Your task to perform on an android device: Do I have any events today? Image 0: 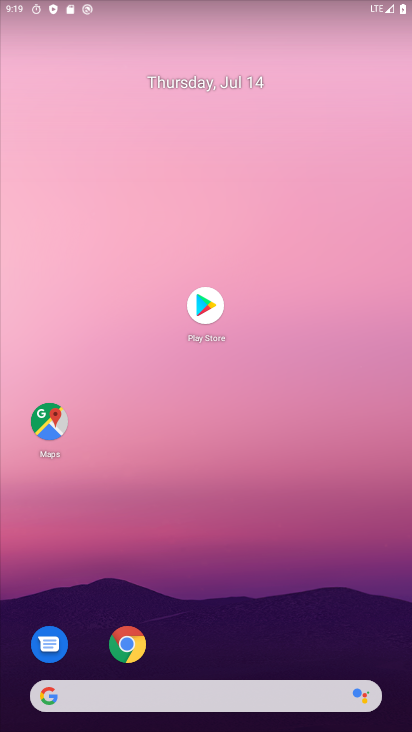
Step 0: click (256, 219)
Your task to perform on an android device: Do I have any events today? Image 1: 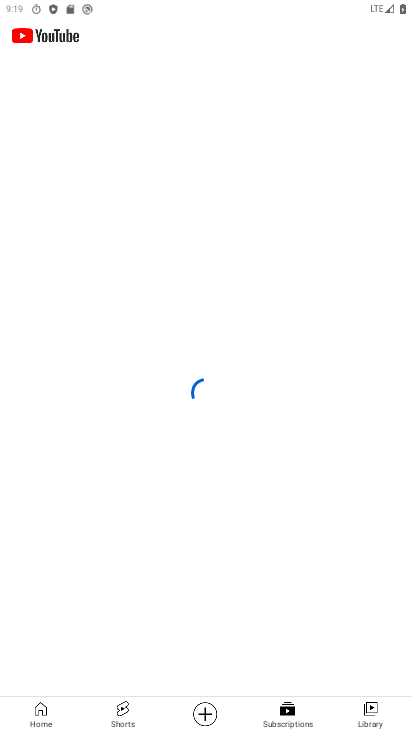
Step 1: drag from (197, 640) to (255, 342)
Your task to perform on an android device: Do I have any events today? Image 2: 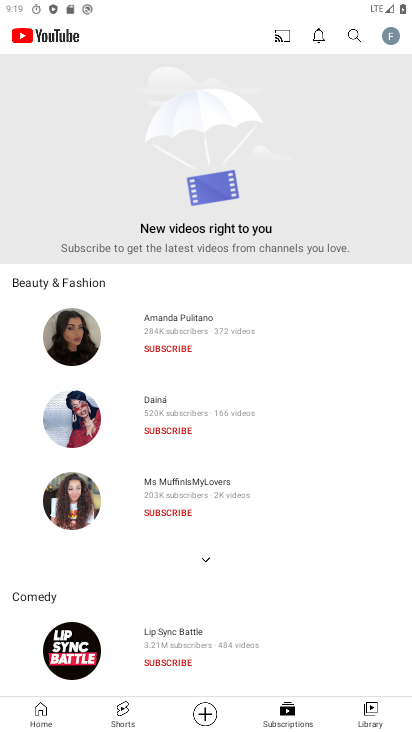
Step 2: drag from (208, 608) to (329, 181)
Your task to perform on an android device: Do I have any events today? Image 3: 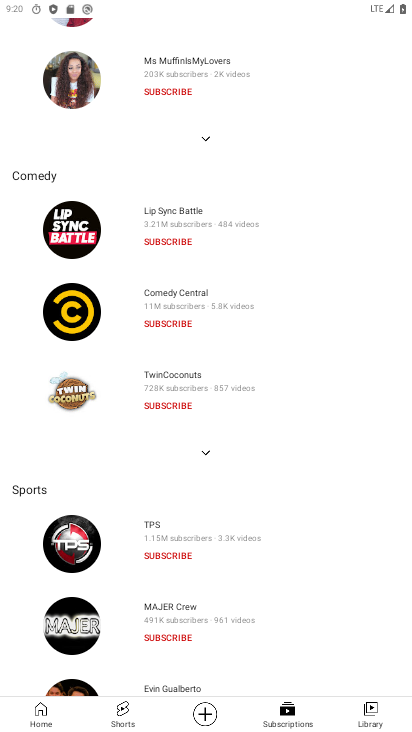
Step 3: drag from (267, 190) to (247, 604)
Your task to perform on an android device: Do I have any events today? Image 4: 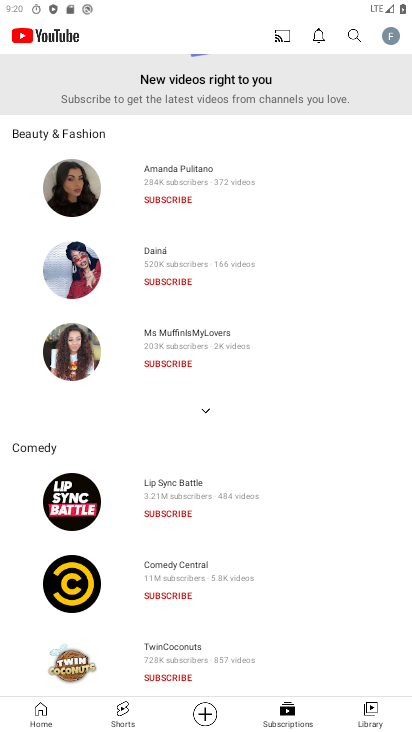
Step 4: drag from (281, 201) to (233, 642)
Your task to perform on an android device: Do I have any events today? Image 5: 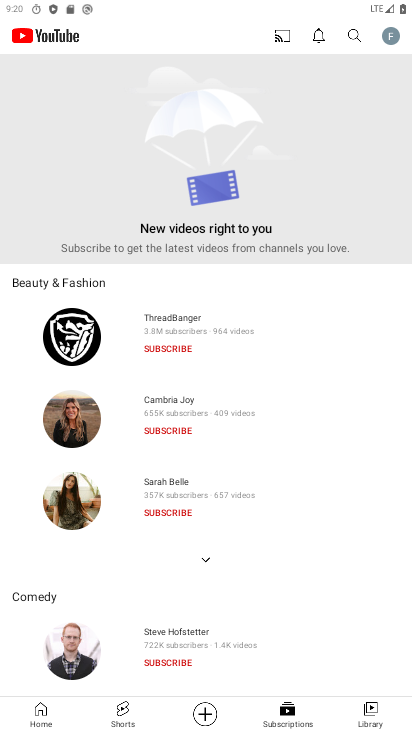
Step 5: drag from (239, 247) to (172, 529)
Your task to perform on an android device: Do I have any events today? Image 6: 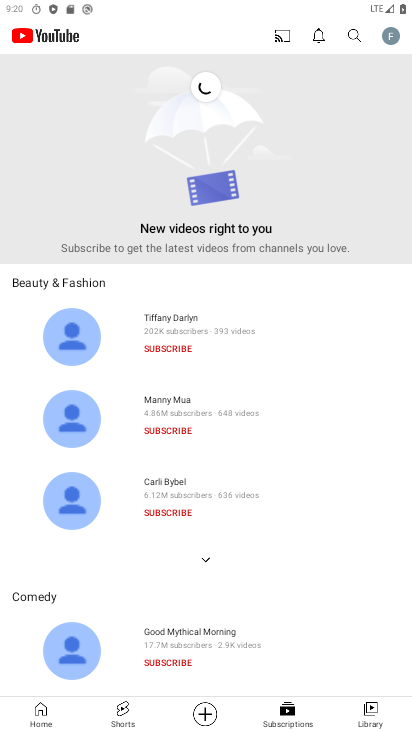
Step 6: drag from (189, 663) to (292, 350)
Your task to perform on an android device: Do I have any events today? Image 7: 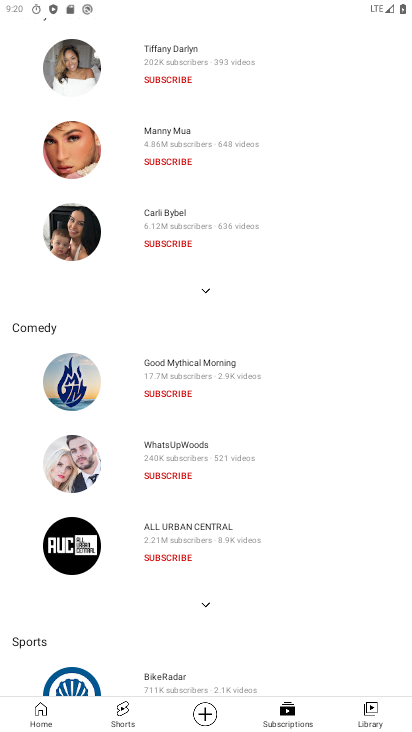
Step 7: drag from (223, 540) to (297, 311)
Your task to perform on an android device: Do I have any events today? Image 8: 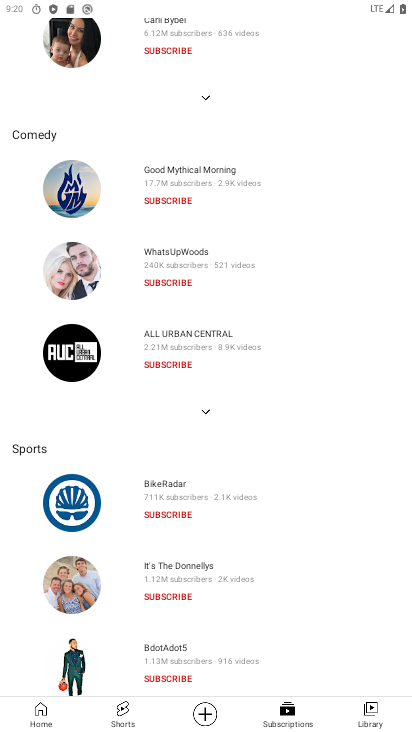
Step 8: drag from (249, 625) to (288, 325)
Your task to perform on an android device: Do I have any events today? Image 9: 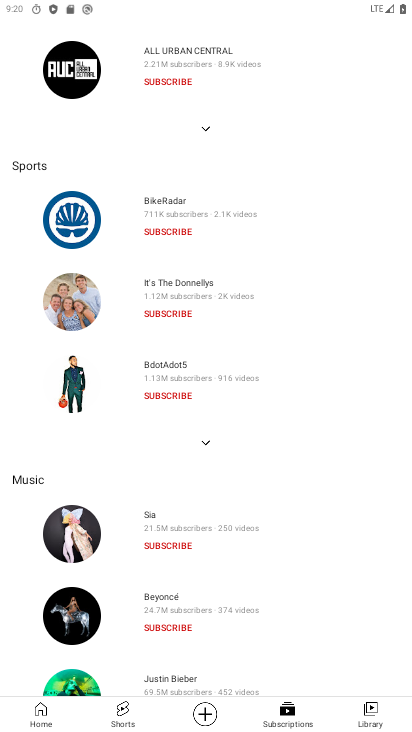
Step 9: drag from (289, 574) to (339, 340)
Your task to perform on an android device: Do I have any events today? Image 10: 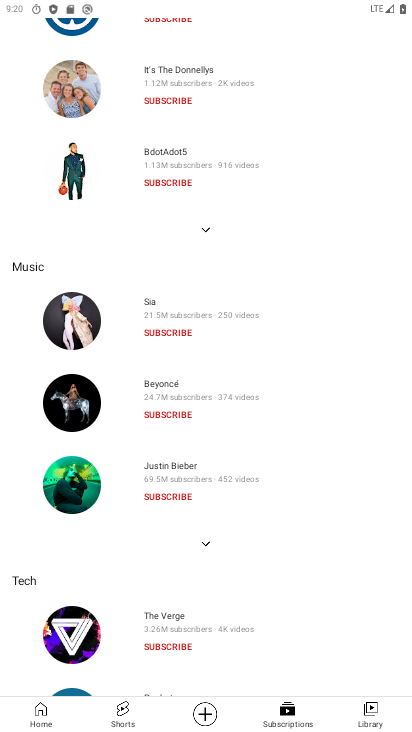
Step 10: drag from (343, 276) to (327, 673)
Your task to perform on an android device: Do I have any events today? Image 11: 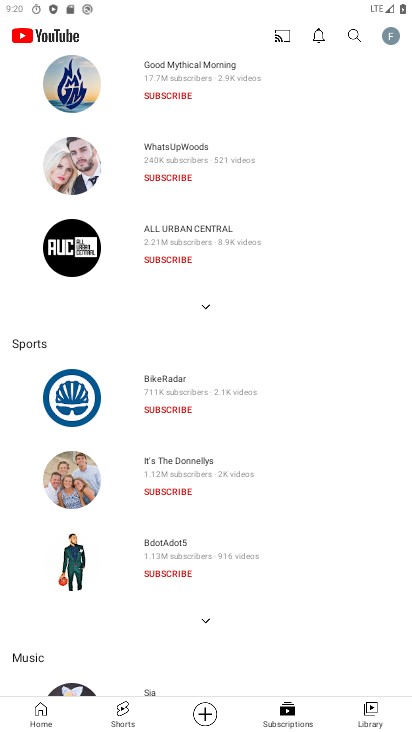
Step 11: drag from (234, 324) to (335, 668)
Your task to perform on an android device: Do I have any events today? Image 12: 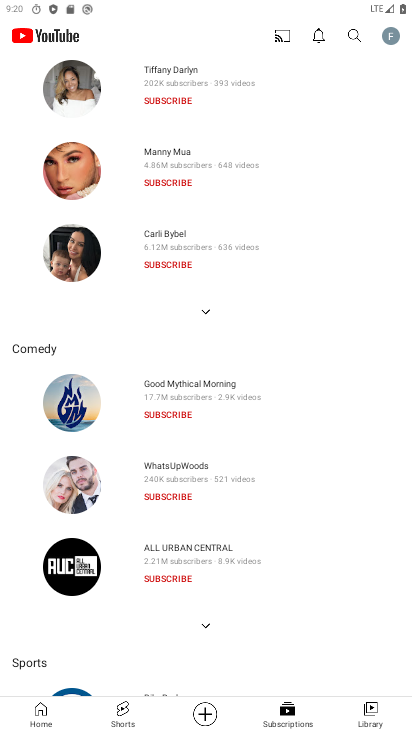
Step 12: drag from (289, 341) to (396, 696)
Your task to perform on an android device: Do I have any events today? Image 13: 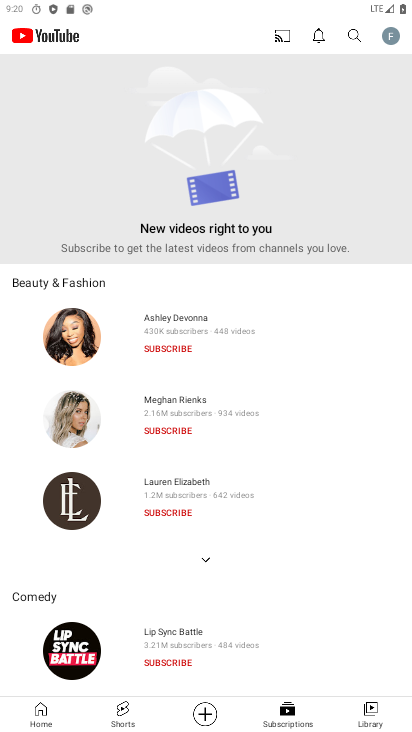
Step 13: drag from (278, 285) to (372, 637)
Your task to perform on an android device: Do I have any events today? Image 14: 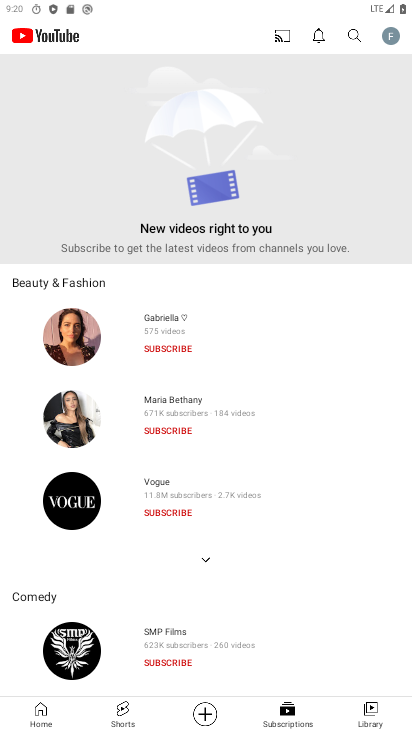
Step 14: drag from (252, 250) to (299, 529)
Your task to perform on an android device: Do I have any events today? Image 15: 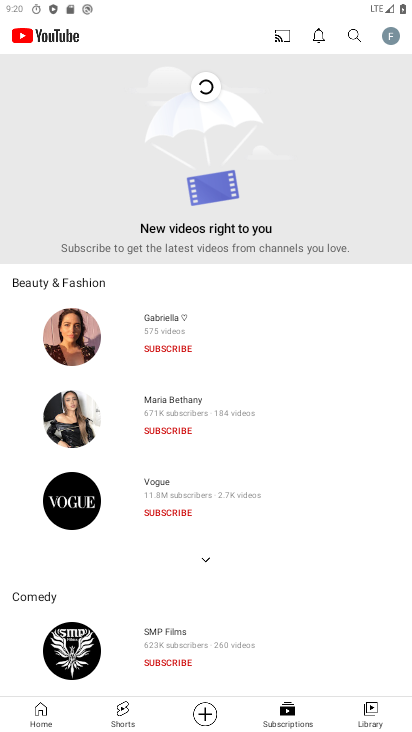
Step 15: drag from (298, 502) to (283, 285)
Your task to perform on an android device: Do I have any events today? Image 16: 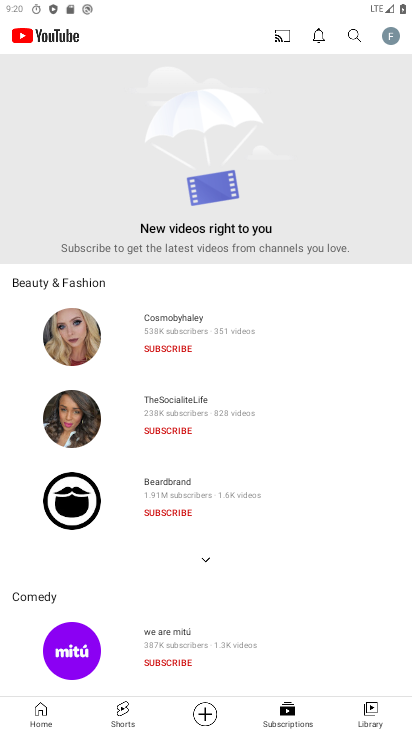
Step 16: drag from (258, 441) to (269, 317)
Your task to perform on an android device: Do I have any events today? Image 17: 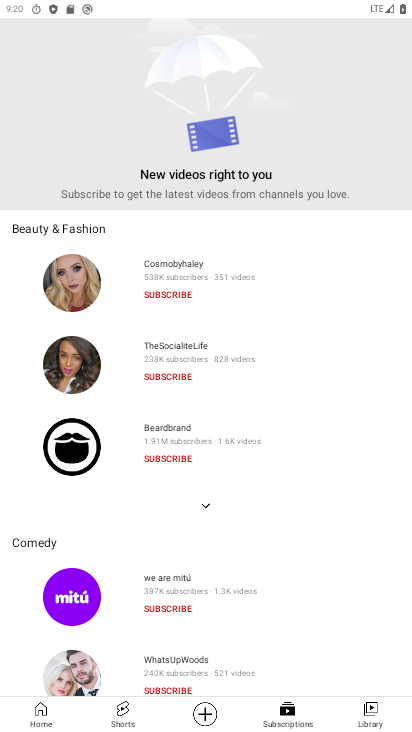
Step 17: drag from (357, 439) to (357, 290)
Your task to perform on an android device: Do I have any events today? Image 18: 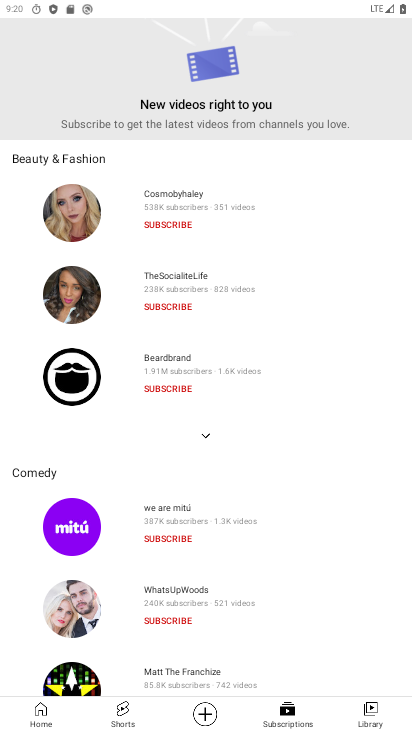
Step 18: drag from (347, 224) to (333, 676)
Your task to perform on an android device: Do I have any events today? Image 19: 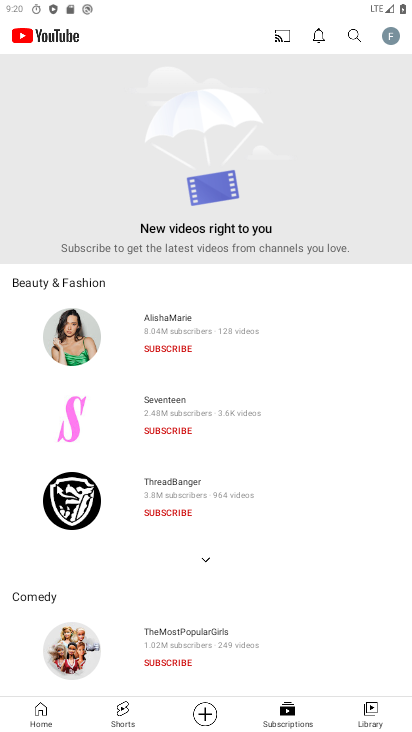
Step 19: drag from (323, 584) to (345, 337)
Your task to perform on an android device: Do I have any events today? Image 20: 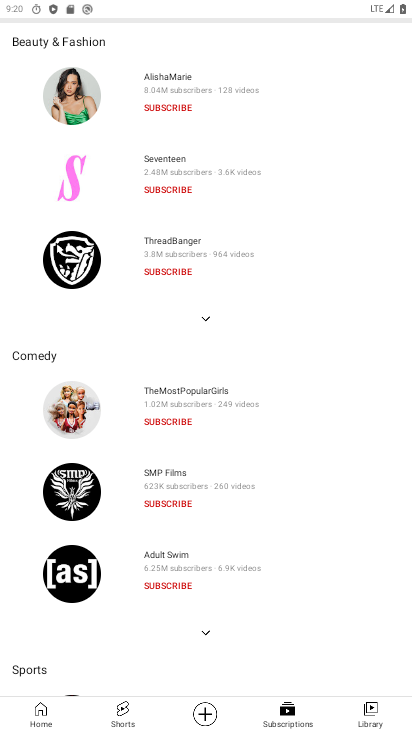
Step 20: drag from (277, 572) to (317, 354)
Your task to perform on an android device: Do I have any events today? Image 21: 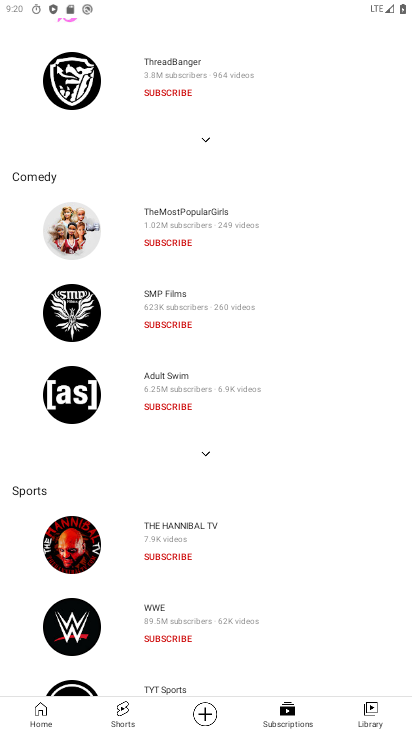
Step 21: drag from (334, 294) to (407, 261)
Your task to perform on an android device: Do I have any events today? Image 22: 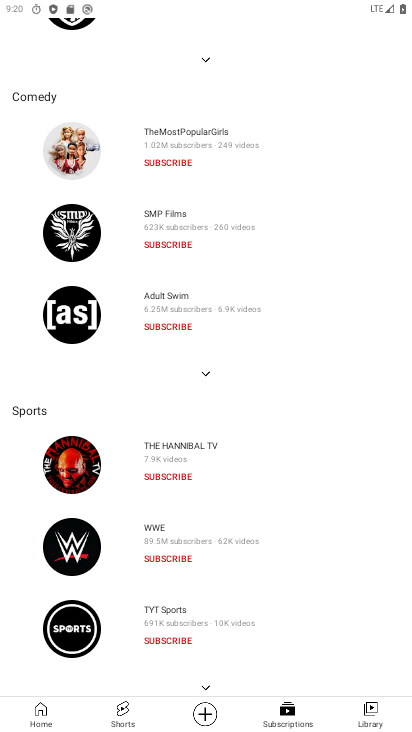
Step 22: click (385, 38)
Your task to perform on an android device: Do I have any events today? Image 23: 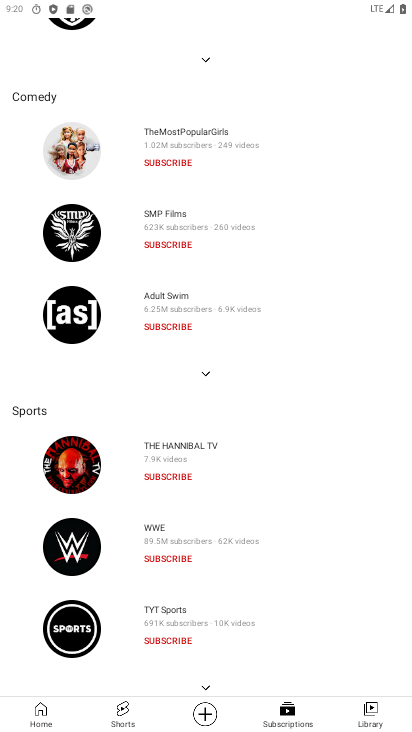
Step 23: drag from (385, 38) to (335, 592)
Your task to perform on an android device: Do I have any events today? Image 24: 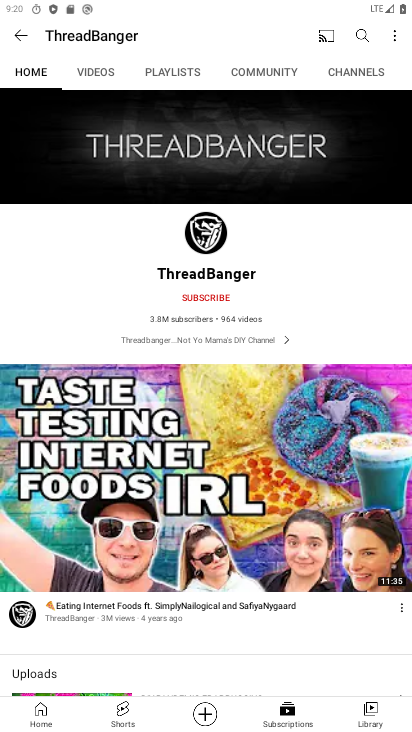
Step 24: click (21, 41)
Your task to perform on an android device: Do I have any events today? Image 25: 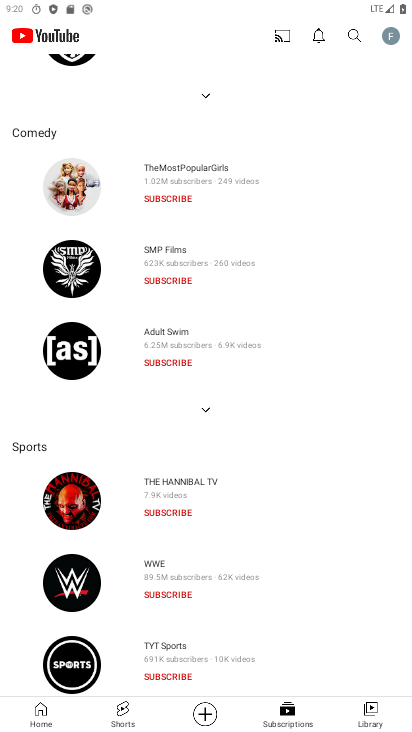
Step 25: drag from (266, 221) to (384, 651)
Your task to perform on an android device: Do I have any events today? Image 26: 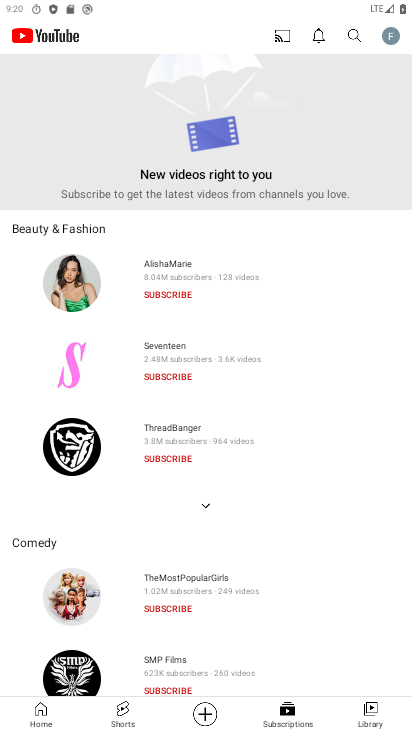
Step 26: press home button
Your task to perform on an android device: Do I have any events today? Image 27: 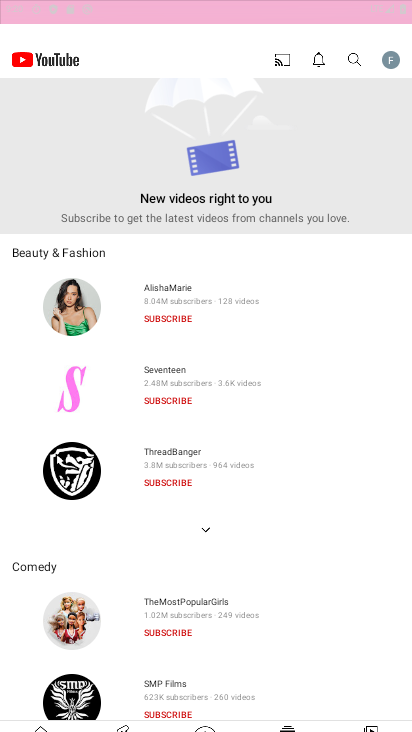
Step 27: drag from (278, 551) to (316, 99)
Your task to perform on an android device: Do I have any events today? Image 28: 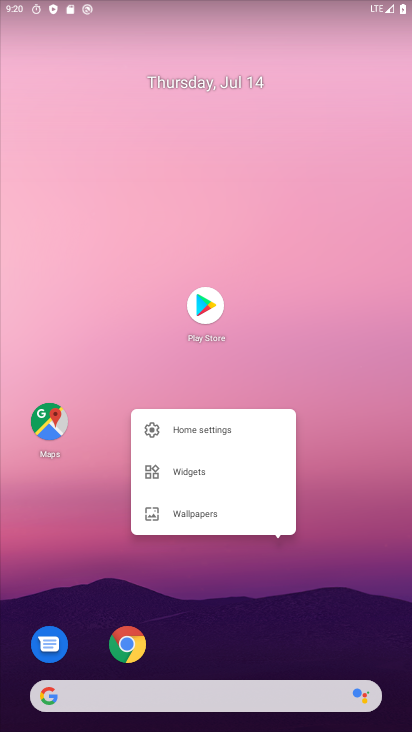
Step 28: drag from (215, 558) to (273, 105)
Your task to perform on an android device: Do I have any events today? Image 29: 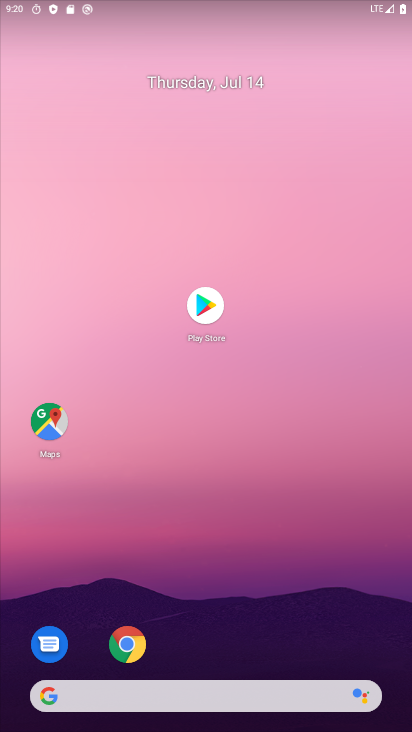
Step 29: drag from (200, 665) to (243, 93)
Your task to perform on an android device: Do I have any events today? Image 30: 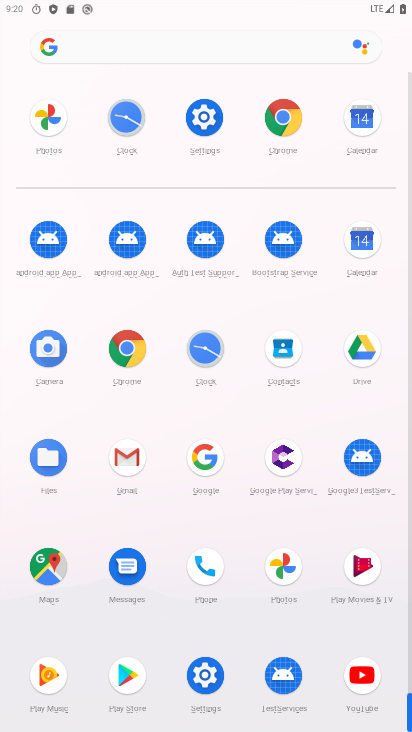
Step 30: click (360, 240)
Your task to perform on an android device: Do I have any events today? Image 31: 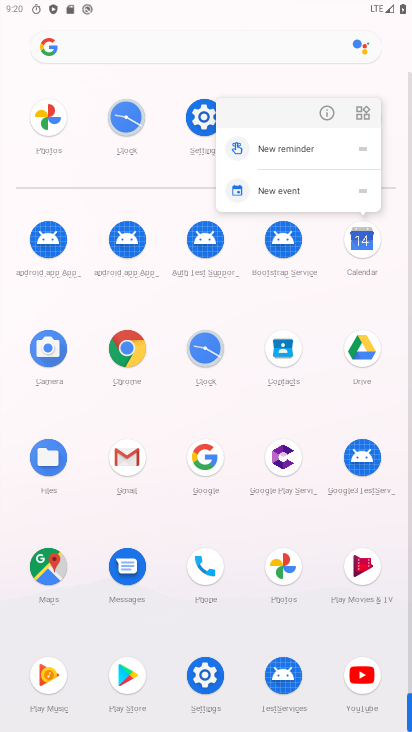
Step 31: click (322, 113)
Your task to perform on an android device: Do I have any events today? Image 32: 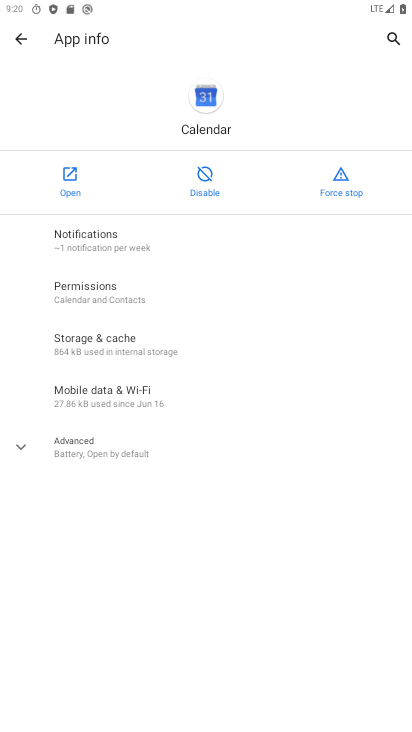
Step 32: click (57, 179)
Your task to perform on an android device: Do I have any events today? Image 33: 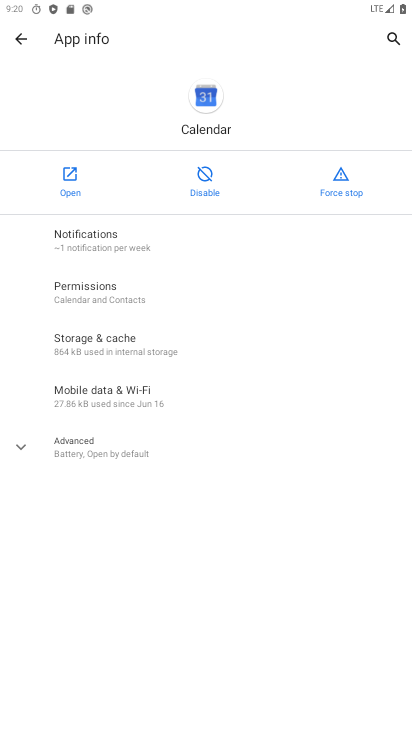
Step 33: click (57, 179)
Your task to perform on an android device: Do I have any events today? Image 34: 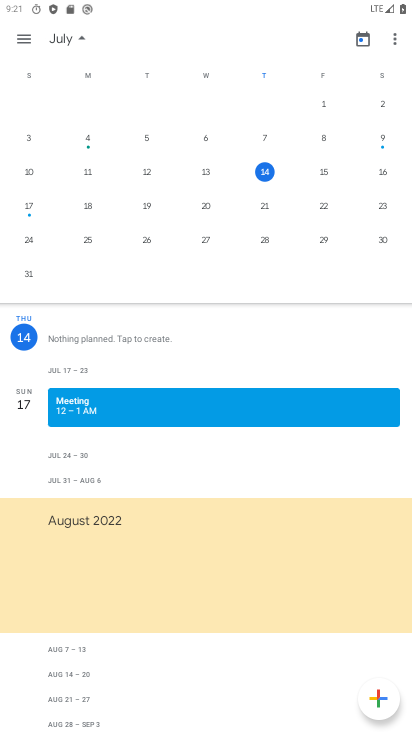
Step 34: click (266, 178)
Your task to perform on an android device: Do I have any events today? Image 35: 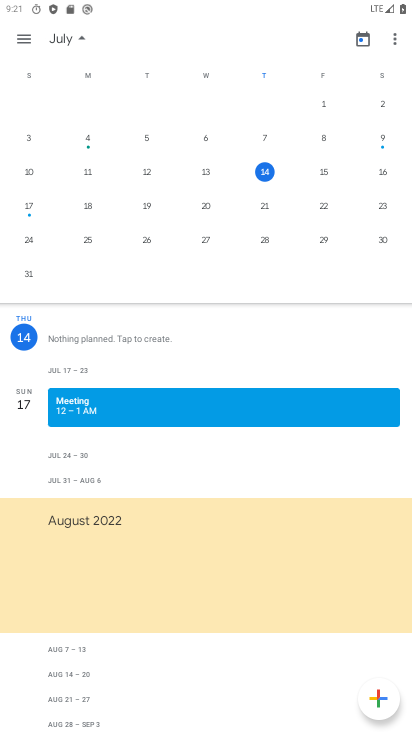
Step 35: task complete